Your task to perform on an android device: Open Amazon Image 0: 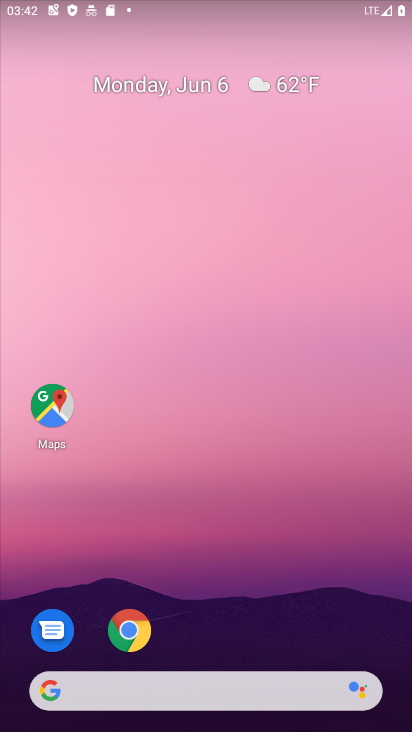
Step 0: click (128, 620)
Your task to perform on an android device: Open Amazon Image 1: 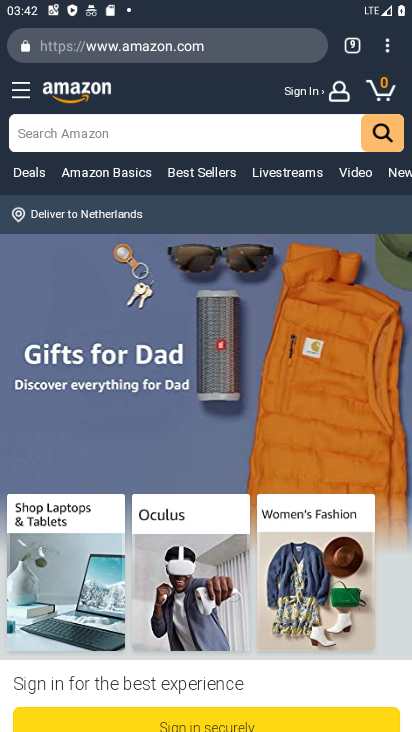
Step 1: task complete